Your task to perform on an android device: change alarm snooze length Image 0: 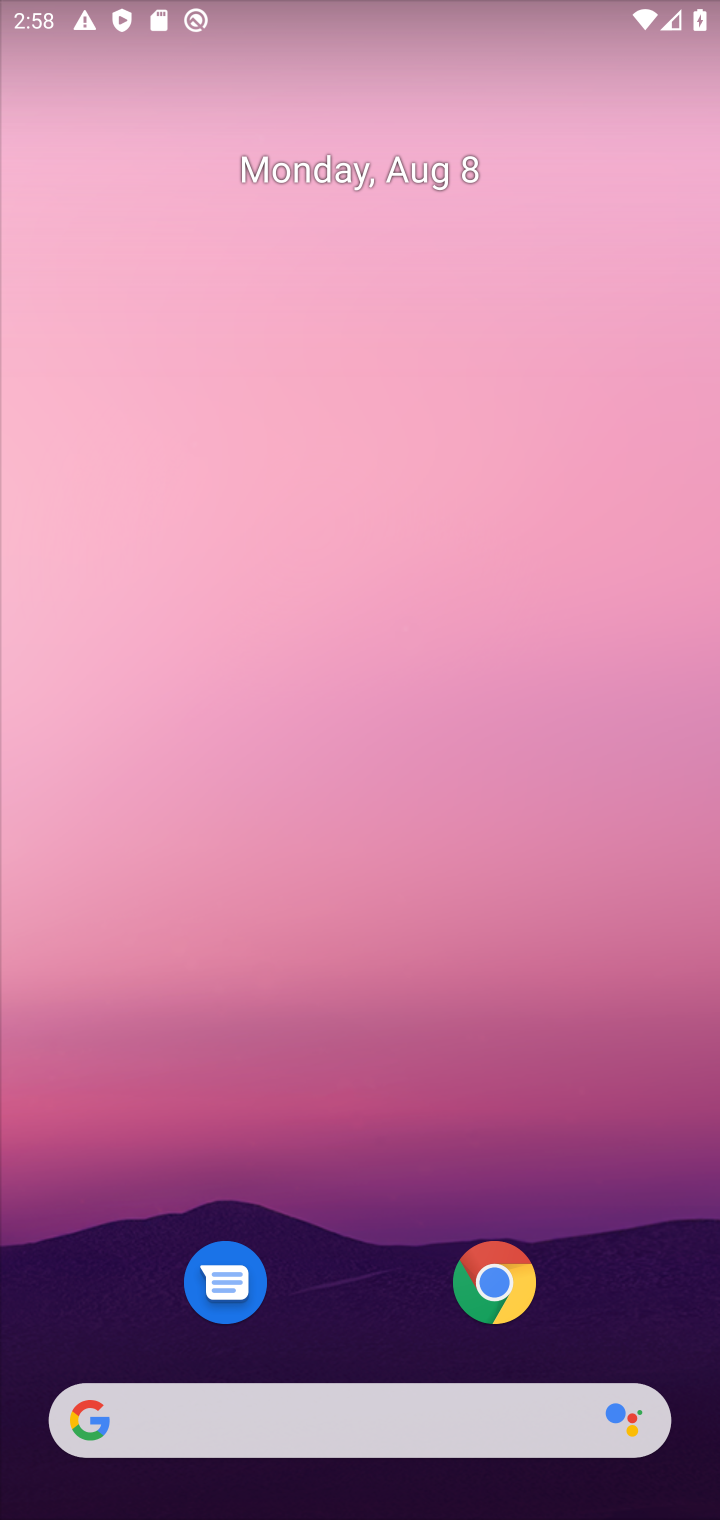
Step 0: drag from (361, 799) to (439, 195)
Your task to perform on an android device: change alarm snooze length Image 1: 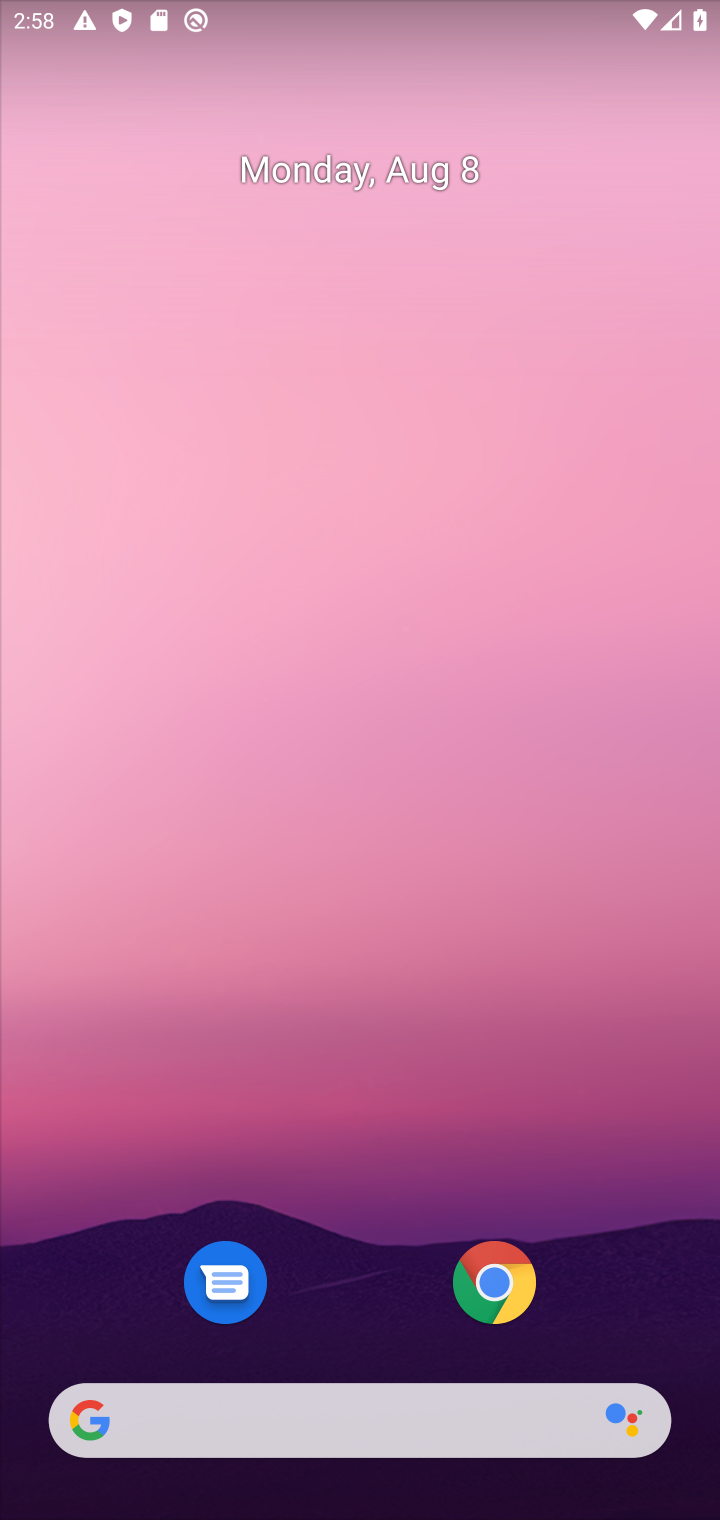
Step 1: drag from (381, 1260) to (462, 214)
Your task to perform on an android device: change alarm snooze length Image 2: 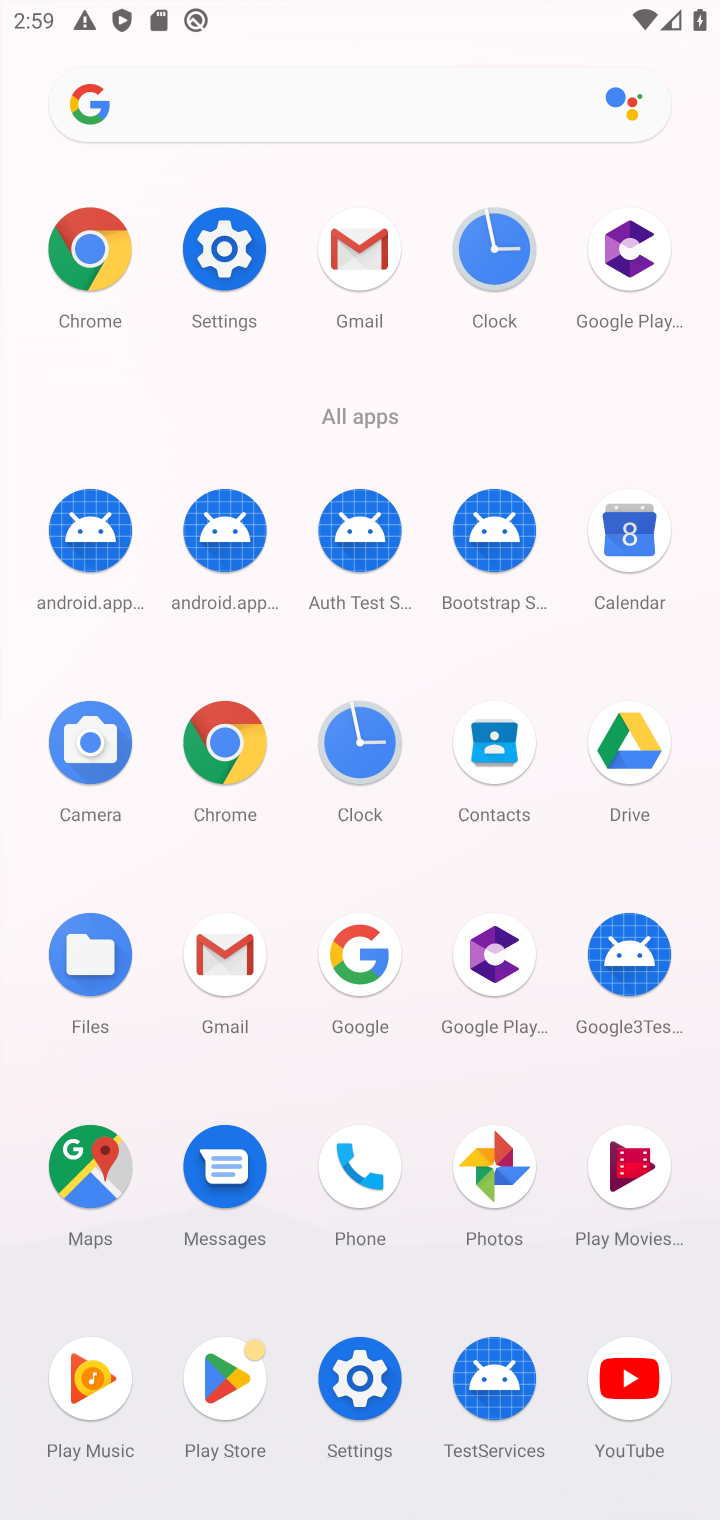
Step 2: click (364, 744)
Your task to perform on an android device: change alarm snooze length Image 3: 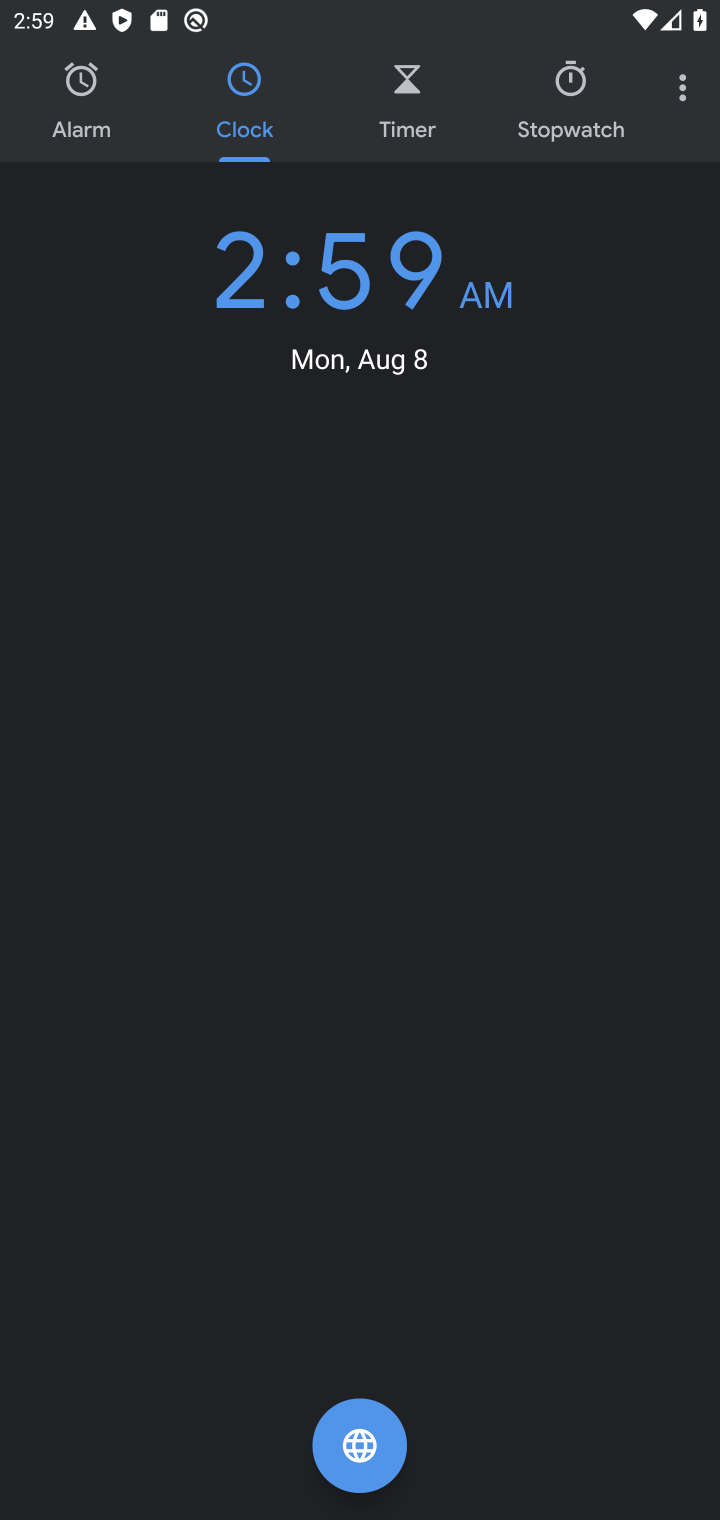
Step 3: click (692, 81)
Your task to perform on an android device: change alarm snooze length Image 4: 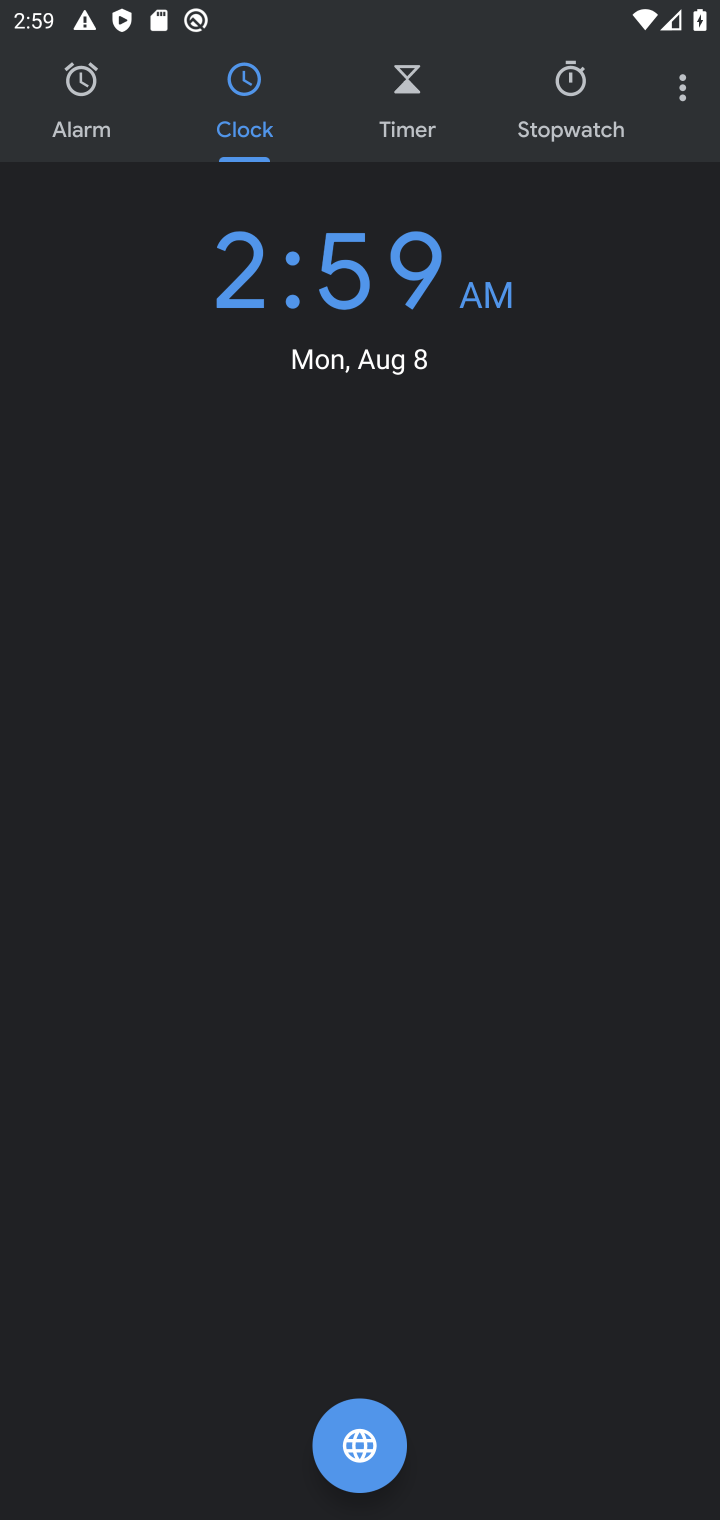
Step 4: click (671, 89)
Your task to perform on an android device: change alarm snooze length Image 5: 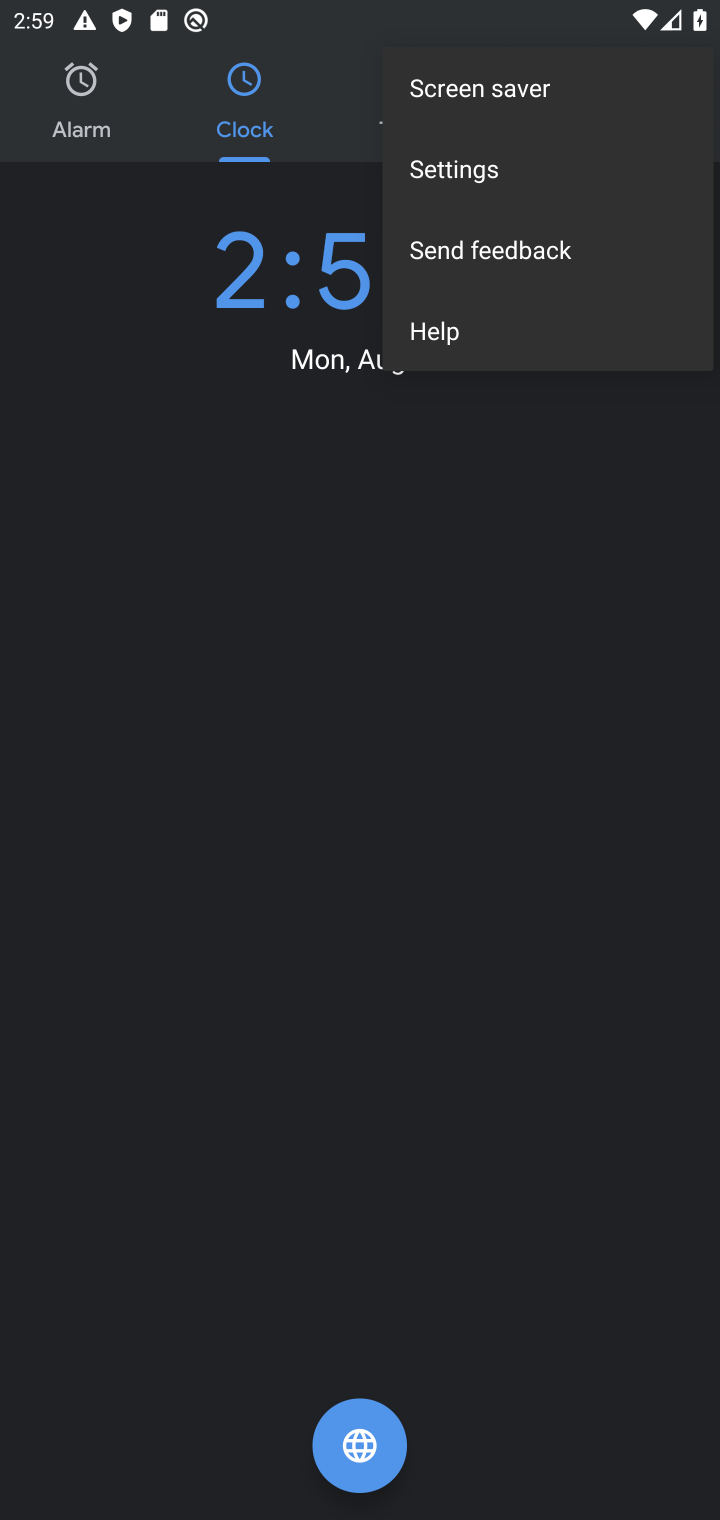
Step 5: click (454, 196)
Your task to perform on an android device: change alarm snooze length Image 6: 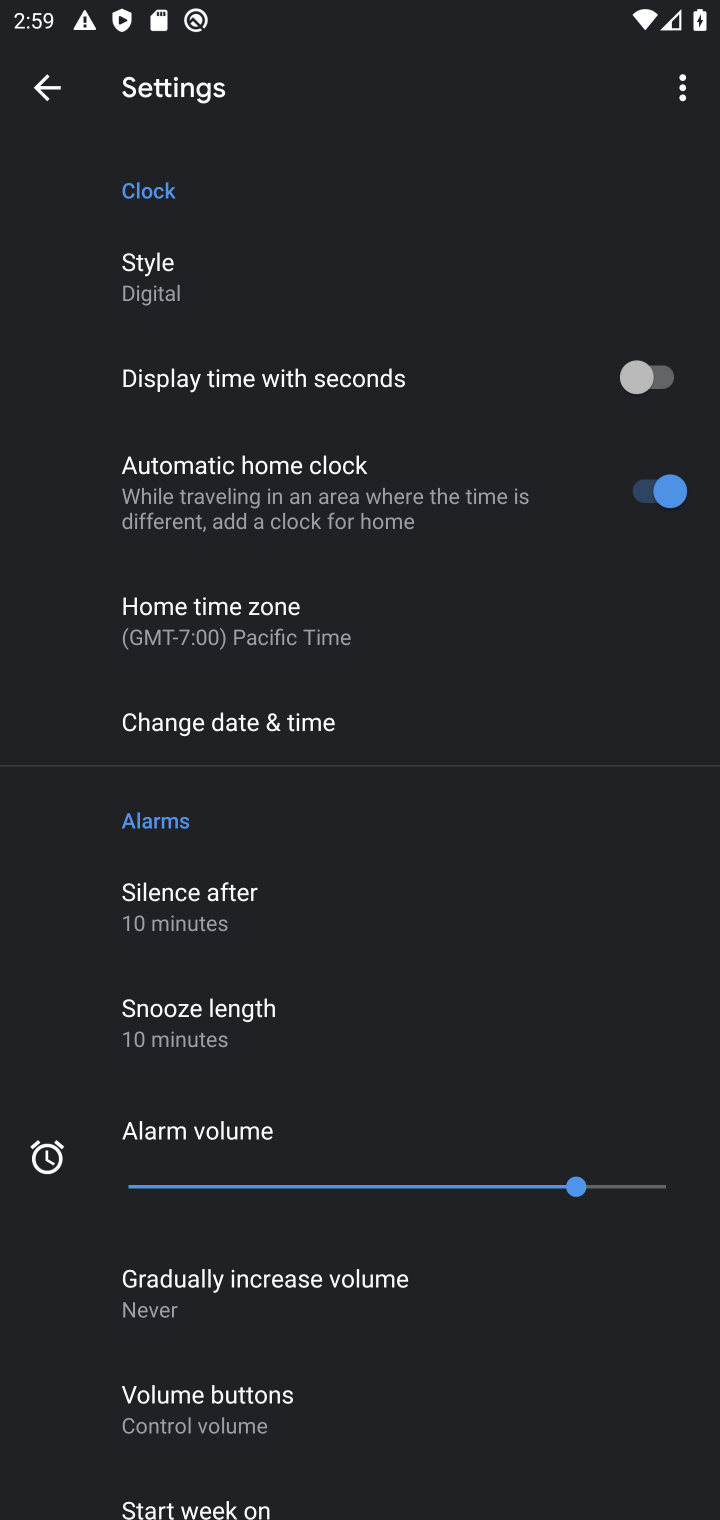
Step 6: click (249, 1032)
Your task to perform on an android device: change alarm snooze length Image 7: 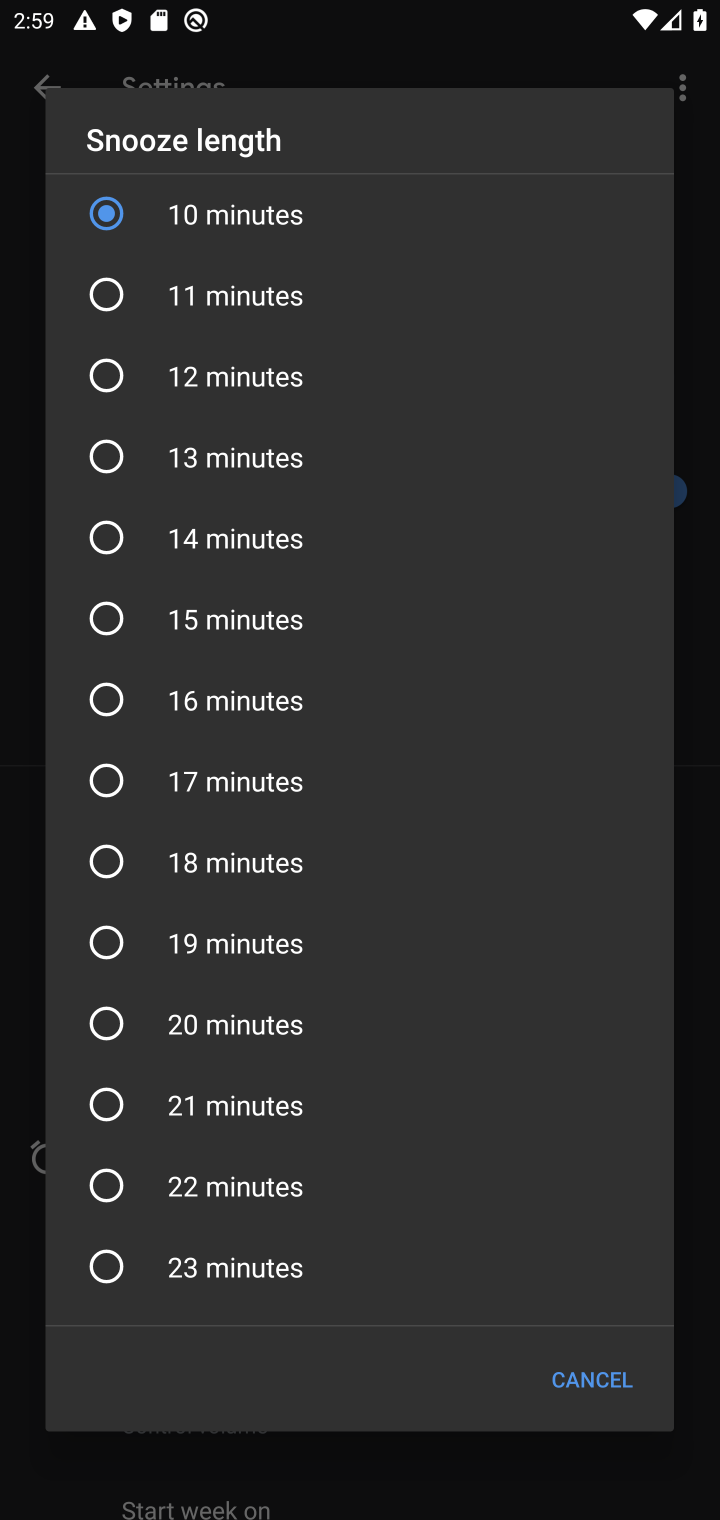
Step 7: click (190, 294)
Your task to perform on an android device: change alarm snooze length Image 8: 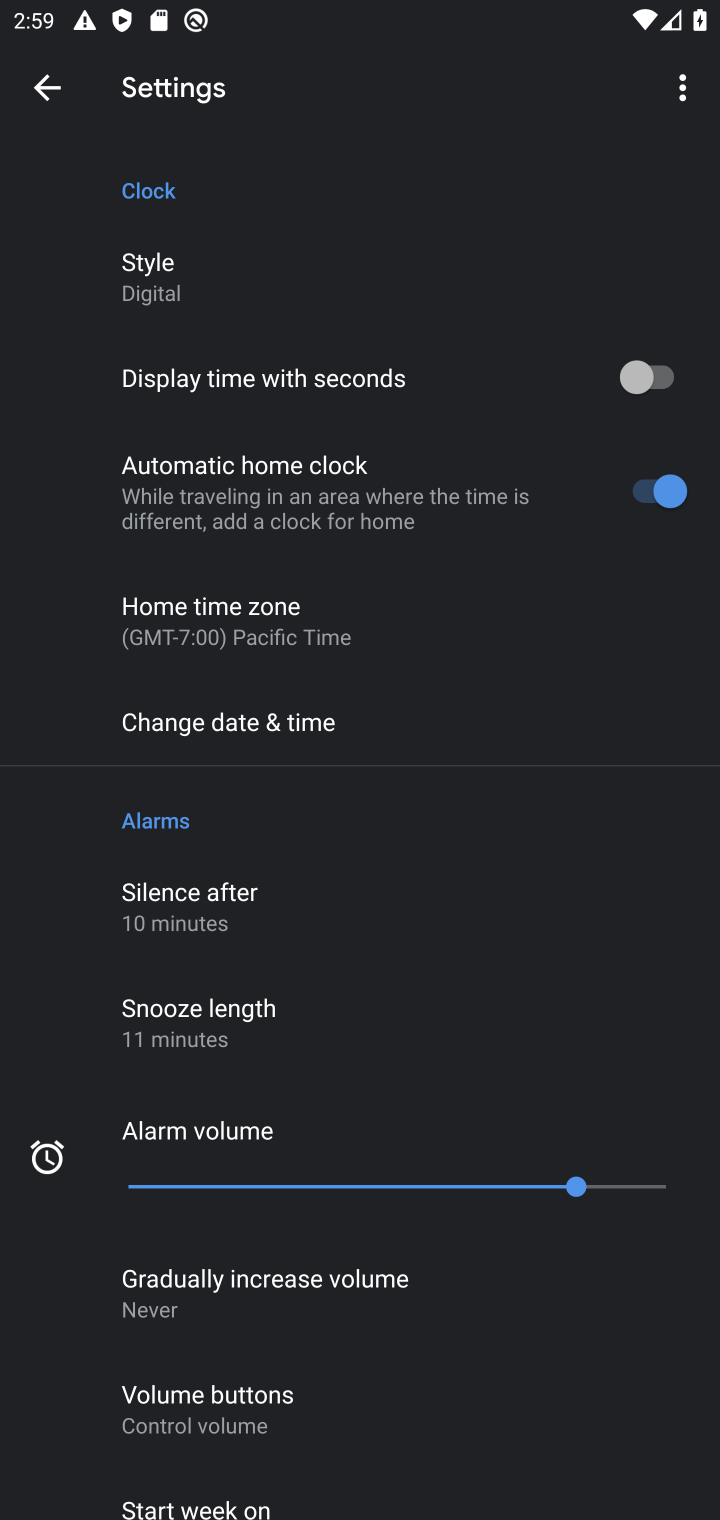
Step 8: task complete